Your task to perform on an android device: turn on sleep mode Image 0: 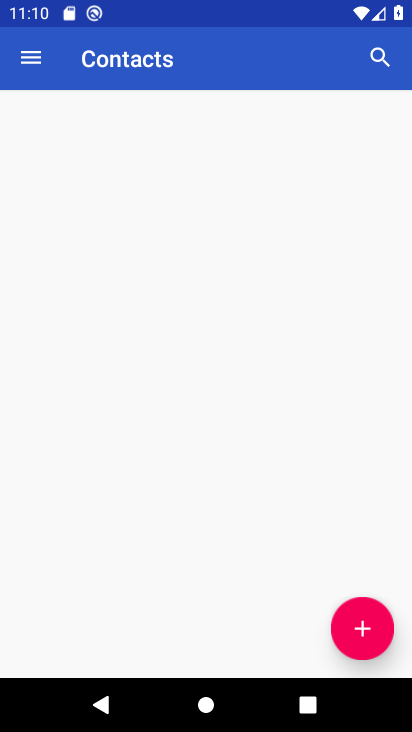
Step 0: press back button
Your task to perform on an android device: turn on sleep mode Image 1: 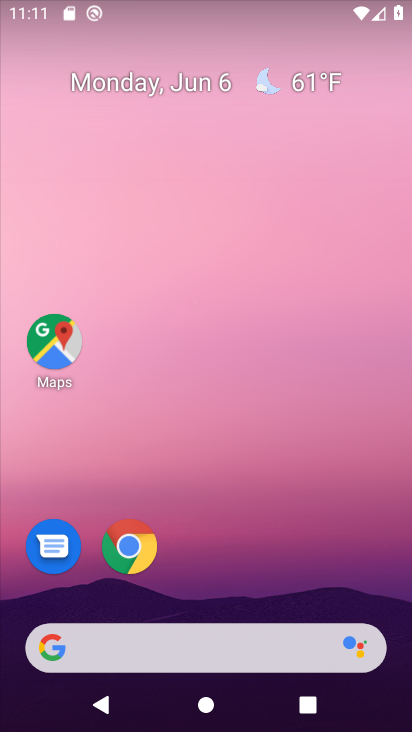
Step 1: drag from (263, 553) to (319, 60)
Your task to perform on an android device: turn on sleep mode Image 2: 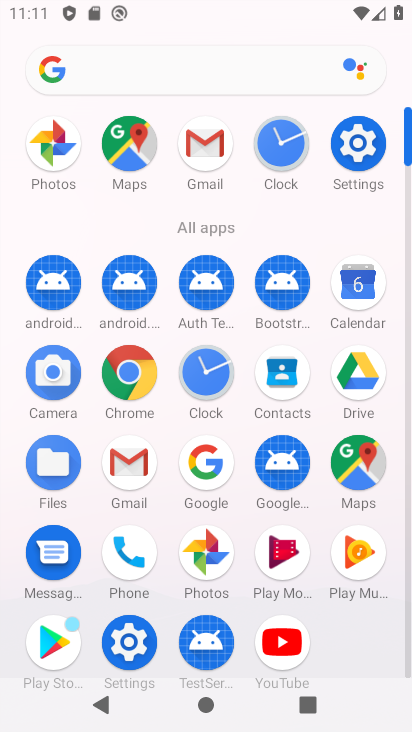
Step 2: click (360, 140)
Your task to perform on an android device: turn on sleep mode Image 3: 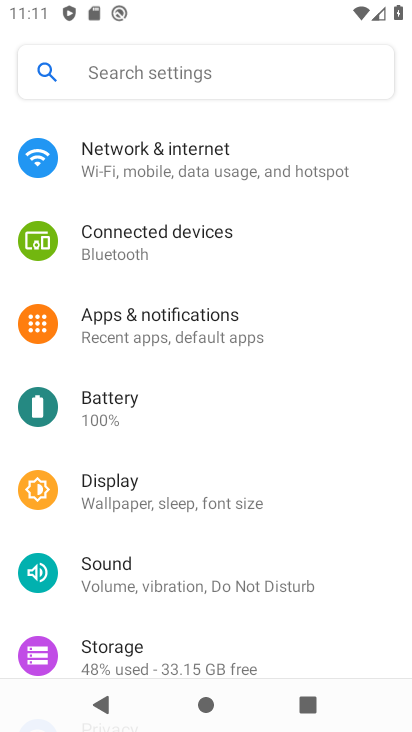
Step 3: click (127, 74)
Your task to perform on an android device: turn on sleep mode Image 4: 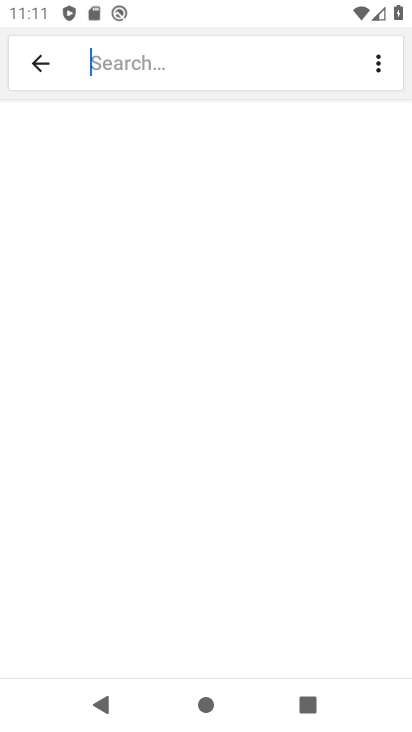
Step 4: type "sleep mode"
Your task to perform on an android device: turn on sleep mode Image 5: 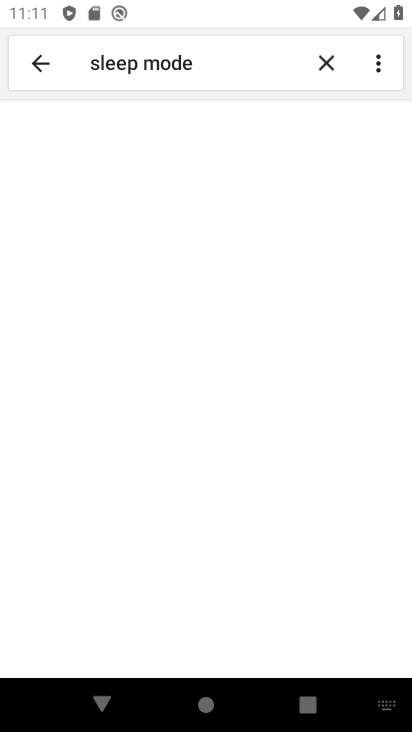
Step 5: task complete